Your task to perform on an android device: check android version Image 0: 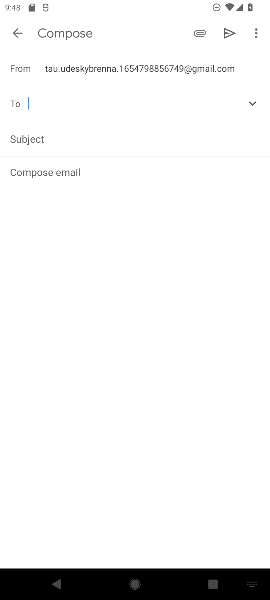
Step 0: drag from (181, 421) to (189, 156)
Your task to perform on an android device: check android version Image 1: 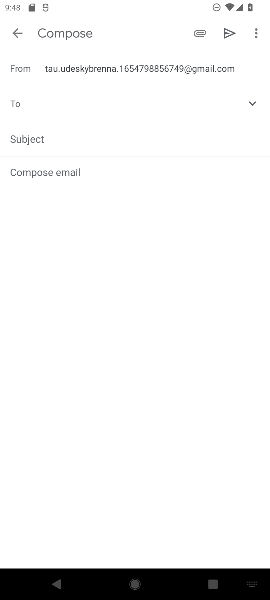
Step 1: press home button
Your task to perform on an android device: check android version Image 2: 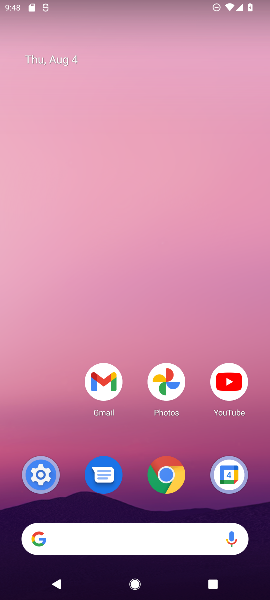
Step 2: drag from (134, 509) to (75, 1)
Your task to perform on an android device: check android version Image 3: 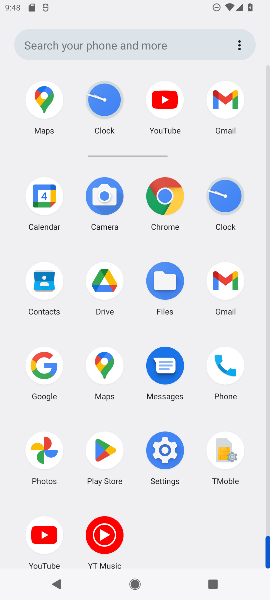
Step 3: click (150, 458)
Your task to perform on an android device: check android version Image 4: 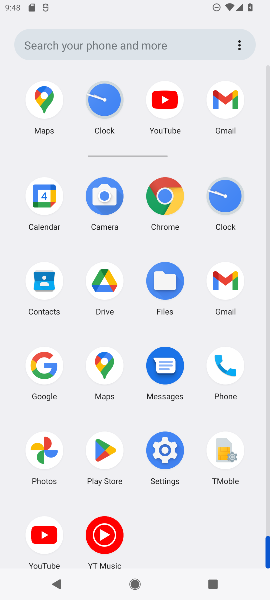
Step 4: click (150, 458)
Your task to perform on an android device: check android version Image 5: 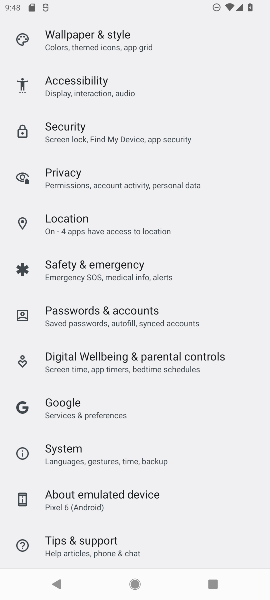
Step 5: click (59, 504)
Your task to perform on an android device: check android version Image 6: 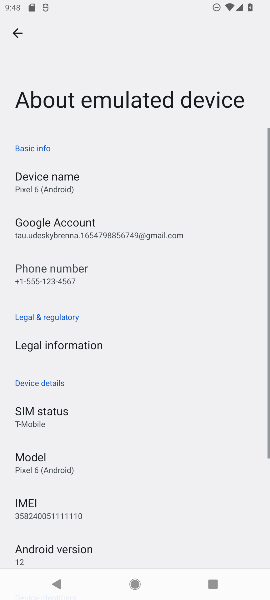
Step 6: drag from (73, 455) to (81, 223)
Your task to perform on an android device: check android version Image 7: 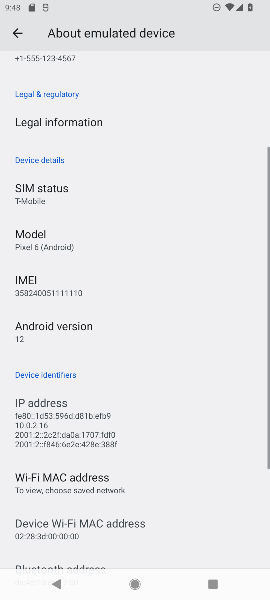
Step 7: click (65, 329)
Your task to perform on an android device: check android version Image 8: 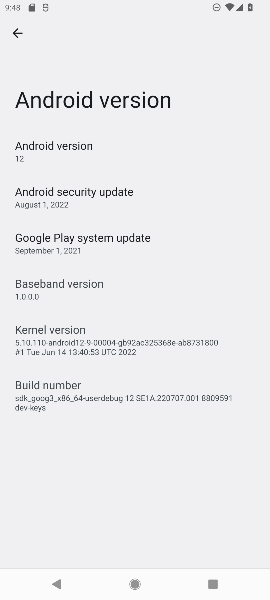
Step 8: click (124, 150)
Your task to perform on an android device: check android version Image 9: 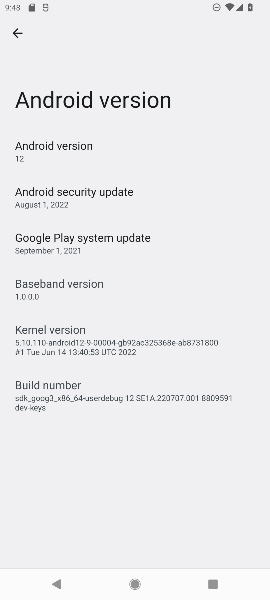
Step 9: task complete